Your task to perform on an android device: Open Google Image 0: 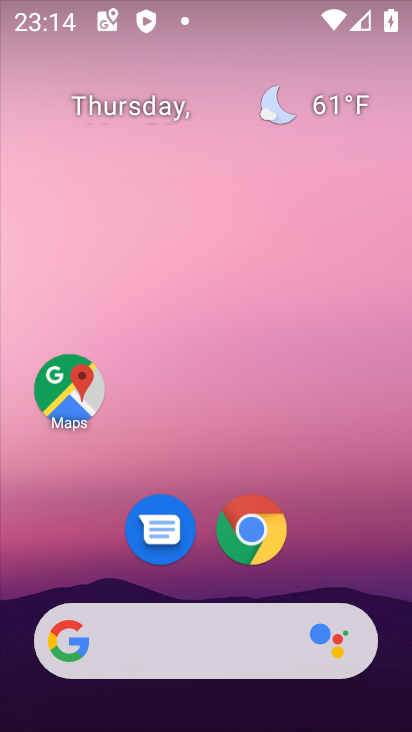
Step 0: click (231, 631)
Your task to perform on an android device: Open Google Image 1: 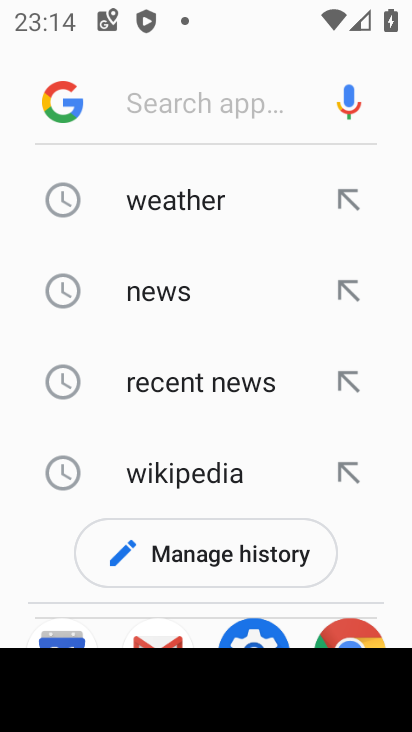
Step 1: type "googl.com"
Your task to perform on an android device: Open Google Image 2: 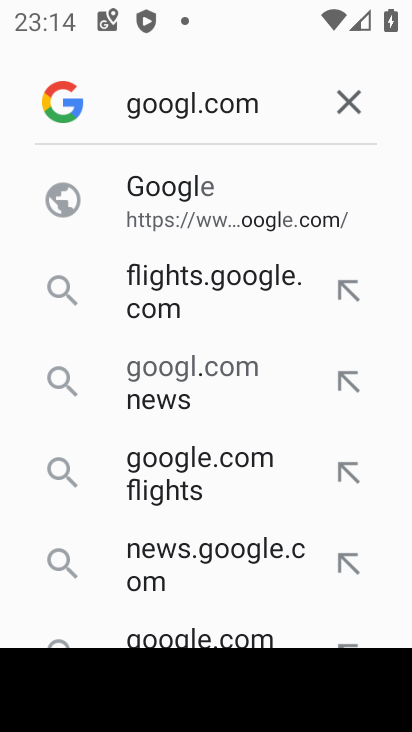
Step 2: click (165, 206)
Your task to perform on an android device: Open Google Image 3: 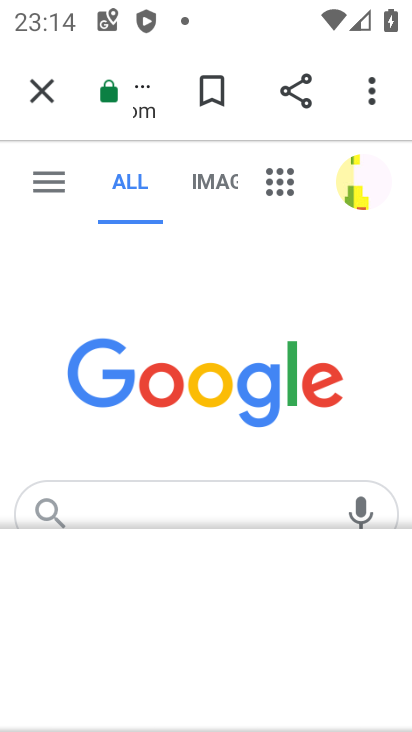
Step 3: task complete